Your task to perform on an android device: Open calendar and show me the second week of next month Image 0: 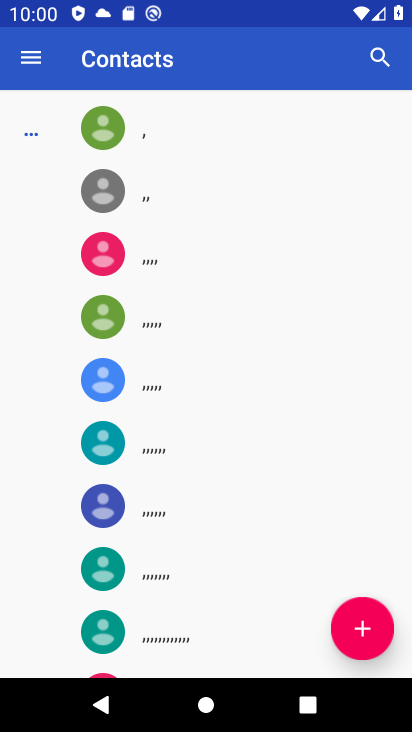
Step 0: press home button
Your task to perform on an android device: Open calendar and show me the second week of next month Image 1: 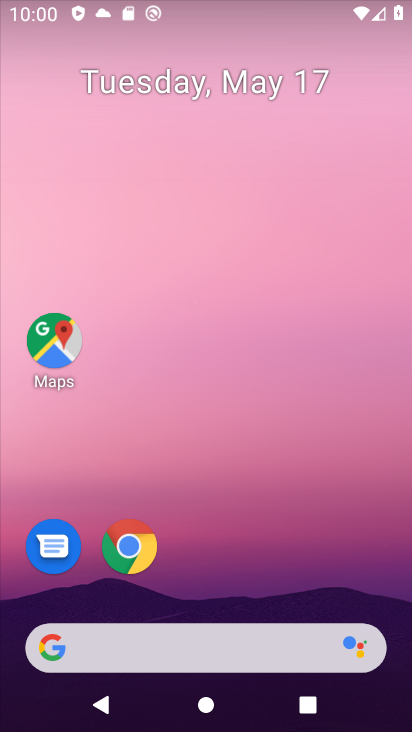
Step 1: drag from (168, 607) to (250, 201)
Your task to perform on an android device: Open calendar and show me the second week of next month Image 2: 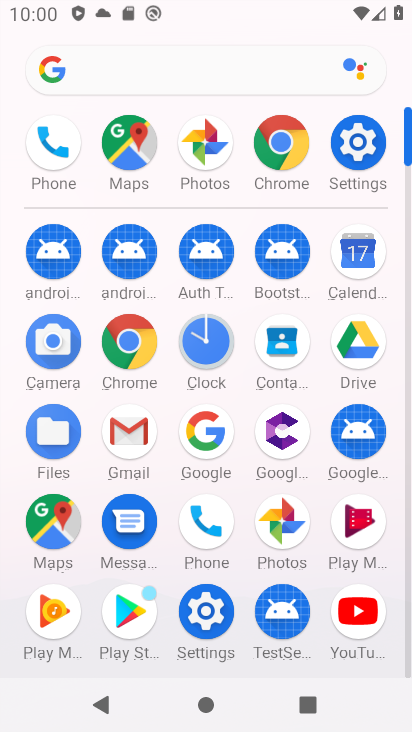
Step 2: click (361, 246)
Your task to perform on an android device: Open calendar and show me the second week of next month Image 3: 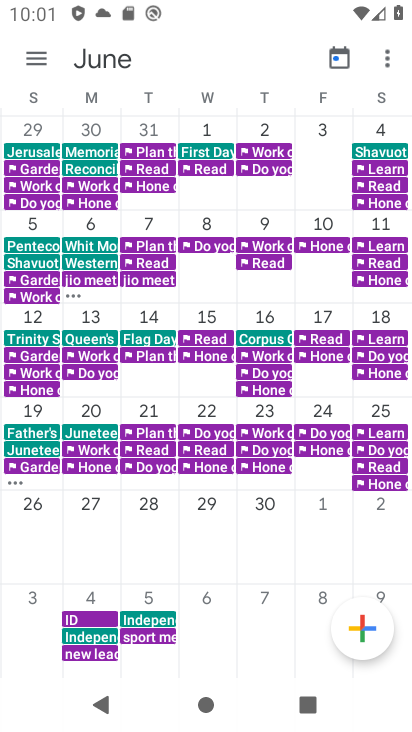
Step 3: task complete